Your task to perform on an android device: turn on showing notifications on the lock screen Image 0: 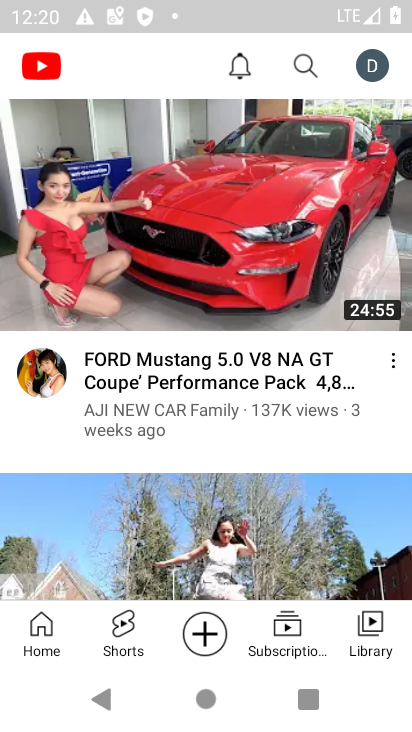
Step 0: press home button
Your task to perform on an android device: turn on showing notifications on the lock screen Image 1: 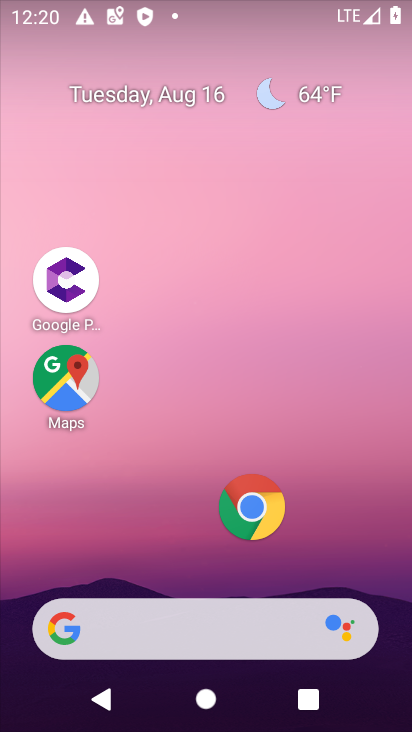
Step 1: drag from (177, 567) to (206, 73)
Your task to perform on an android device: turn on showing notifications on the lock screen Image 2: 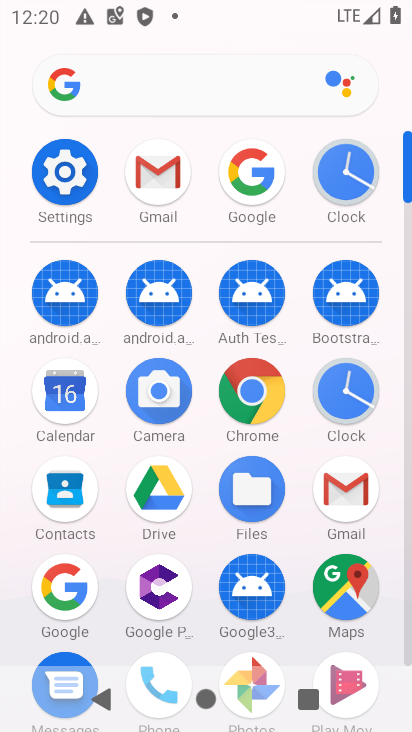
Step 2: click (59, 165)
Your task to perform on an android device: turn on showing notifications on the lock screen Image 3: 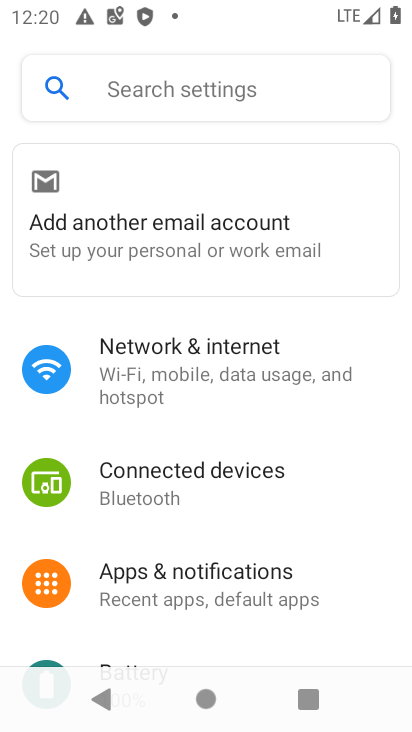
Step 3: click (196, 572)
Your task to perform on an android device: turn on showing notifications on the lock screen Image 4: 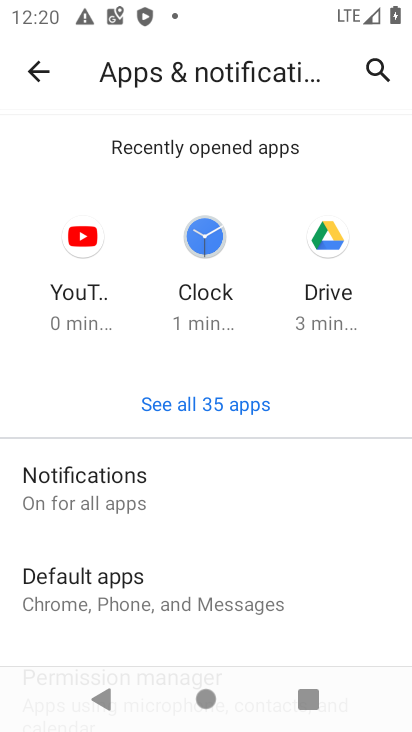
Step 4: drag from (236, 556) to (208, 375)
Your task to perform on an android device: turn on showing notifications on the lock screen Image 5: 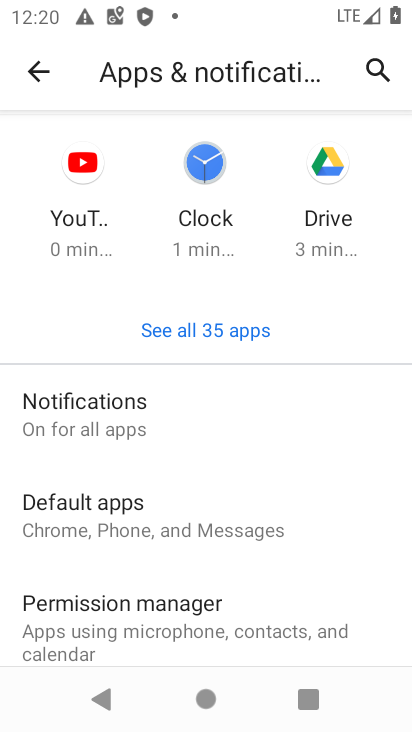
Step 5: click (59, 404)
Your task to perform on an android device: turn on showing notifications on the lock screen Image 6: 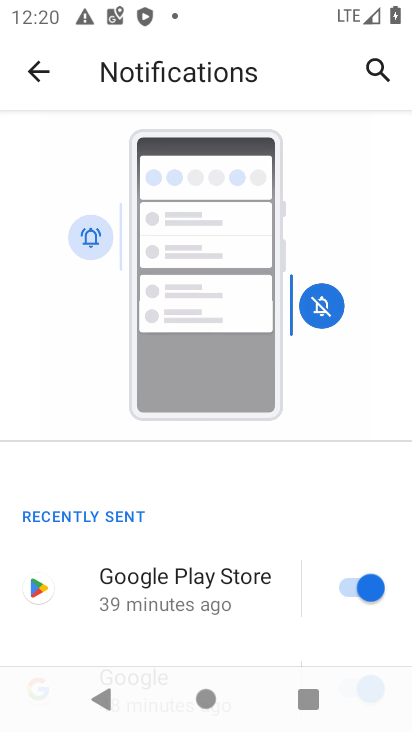
Step 6: drag from (205, 524) to (159, 220)
Your task to perform on an android device: turn on showing notifications on the lock screen Image 7: 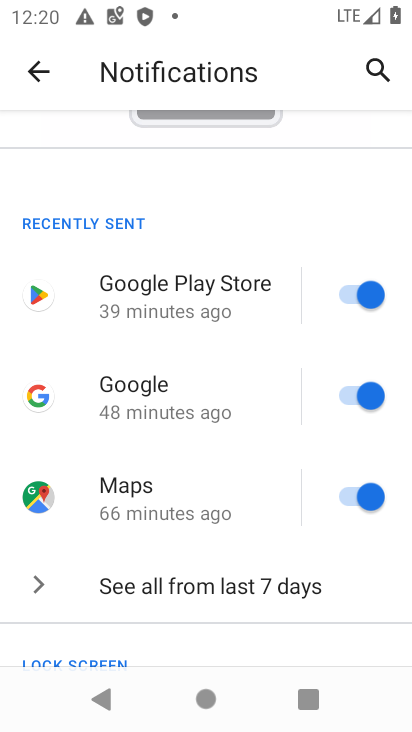
Step 7: drag from (199, 548) to (128, 259)
Your task to perform on an android device: turn on showing notifications on the lock screen Image 8: 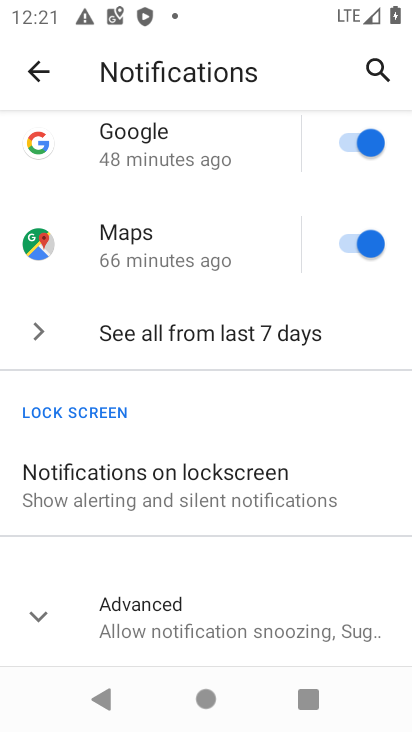
Step 8: click (149, 469)
Your task to perform on an android device: turn on showing notifications on the lock screen Image 9: 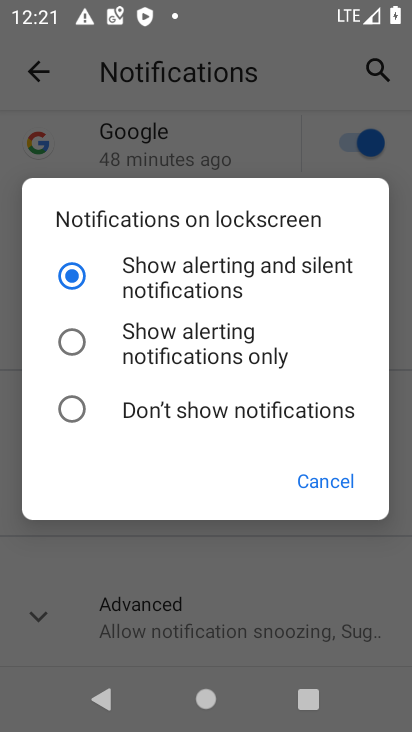
Step 9: task complete